Your task to perform on an android device: check storage Image 0: 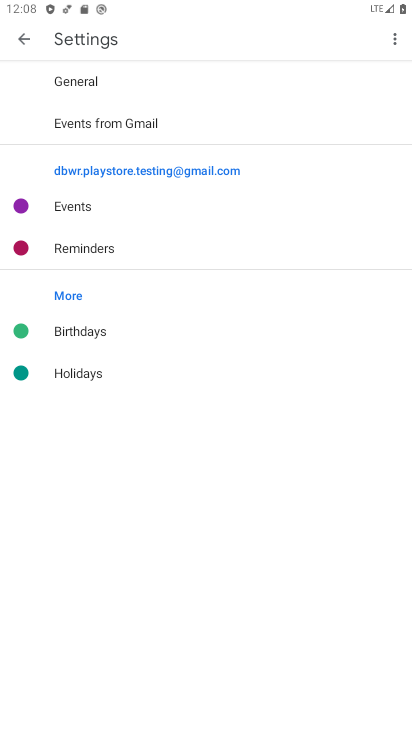
Step 0: type "wether"
Your task to perform on an android device: check storage Image 1: 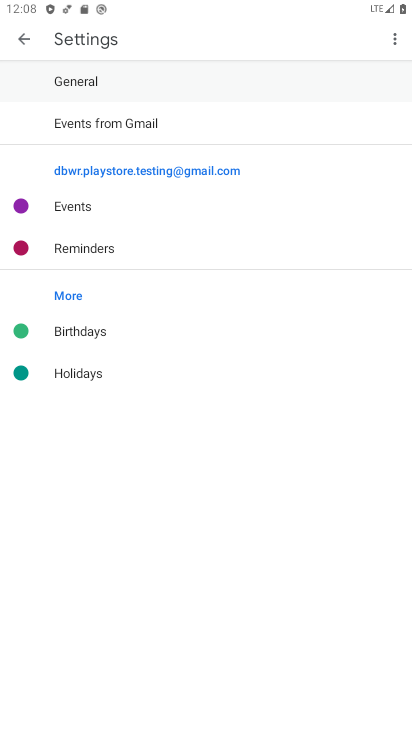
Step 1: press home button
Your task to perform on an android device: check storage Image 2: 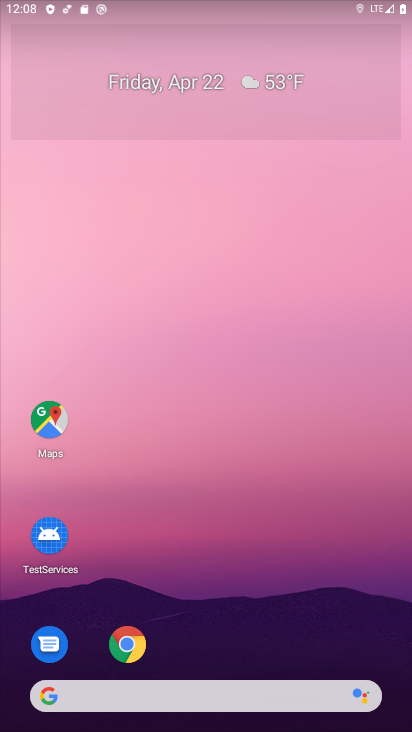
Step 2: drag from (231, 649) to (200, 107)
Your task to perform on an android device: check storage Image 3: 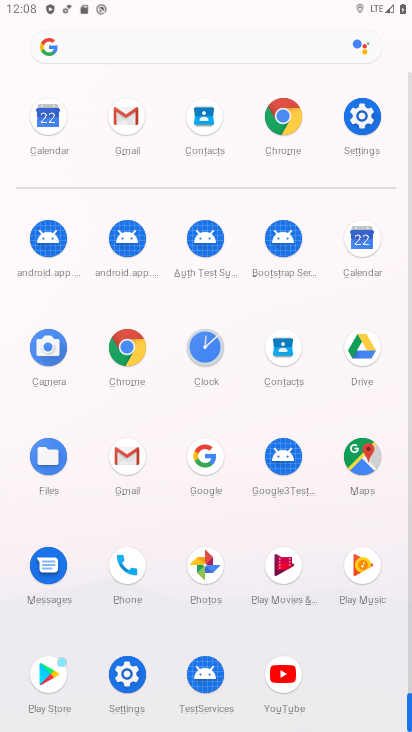
Step 3: click (368, 122)
Your task to perform on an android device: check storage Image 4: 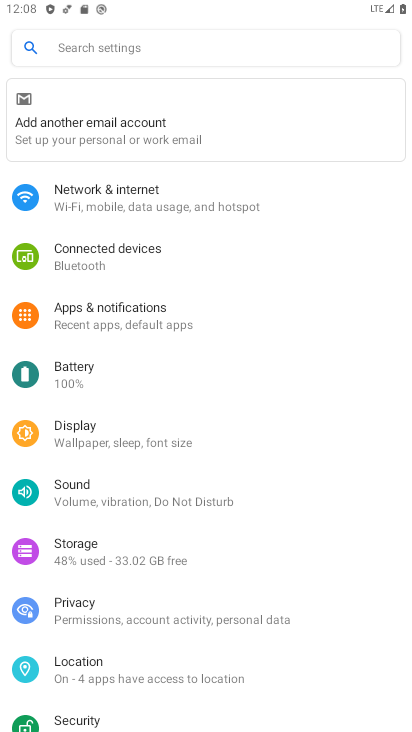
Step 4: click (89, 552)
Your task to perform on an android device: check storage Image 5: 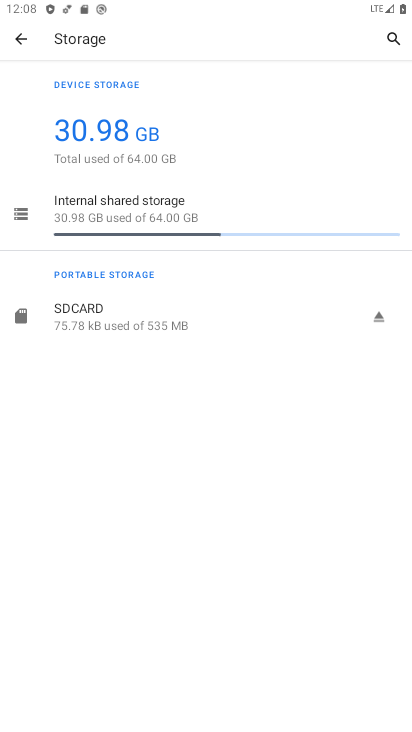
Step 5: task complete